Your task to perform on an android device: Go to battery settings Image 0: 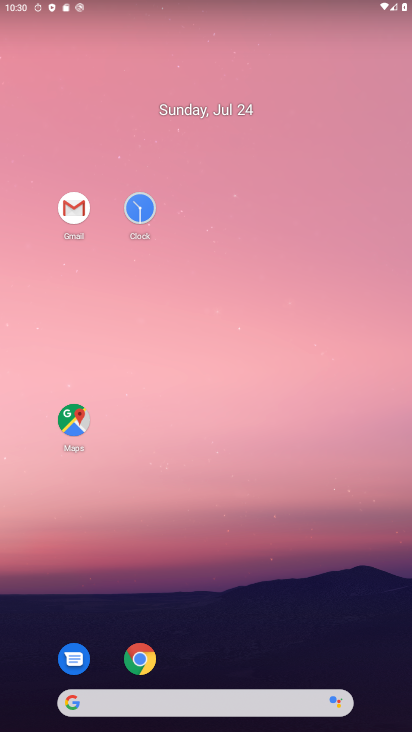
Step 0: drag from (235, 648) to (324, 228)
Your task to perform on an android device: Go to battery settings Image 1: 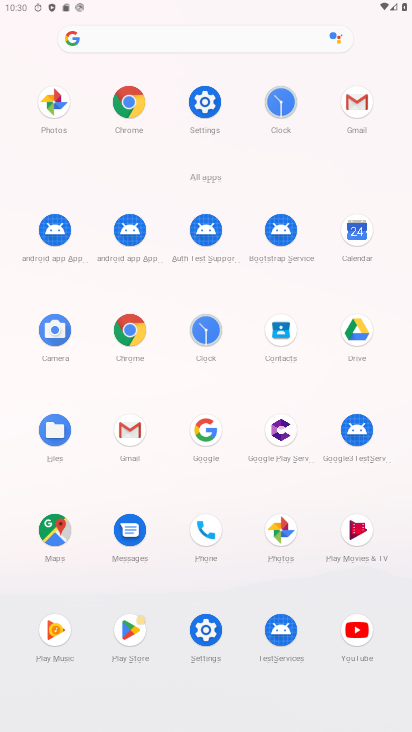
Step 1: drag from (194, 104) to (198, 193)
Your task to perform on an android device: Go to battery settings Image 2: 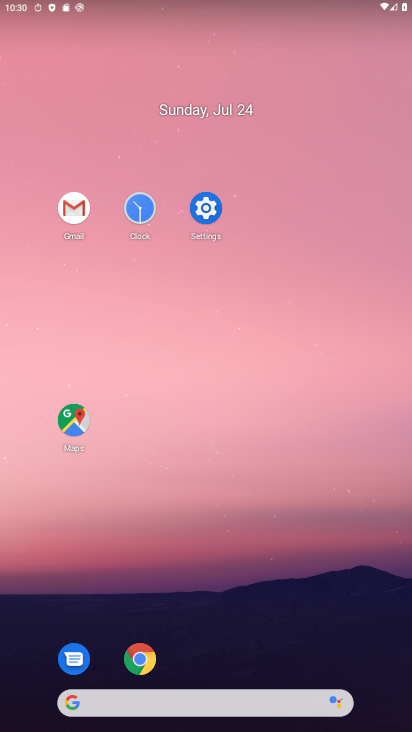
Step 2: click (201, 208)
Your task to perform on an android device: Go to battery settings Image 3: 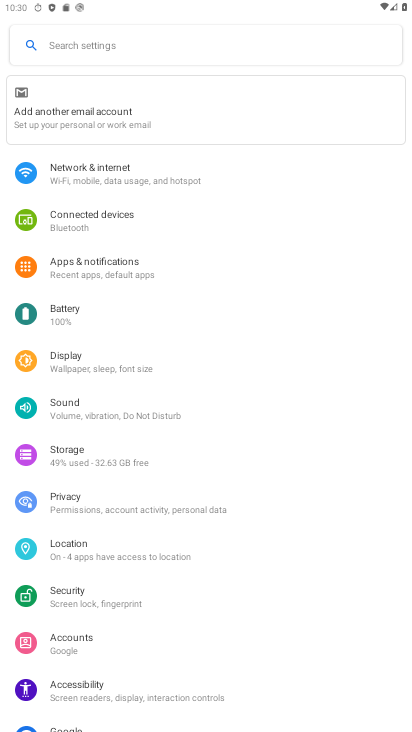
Step 3: click (180, 329)
Your task to perform on an android device: Go to battery settings Image 4: 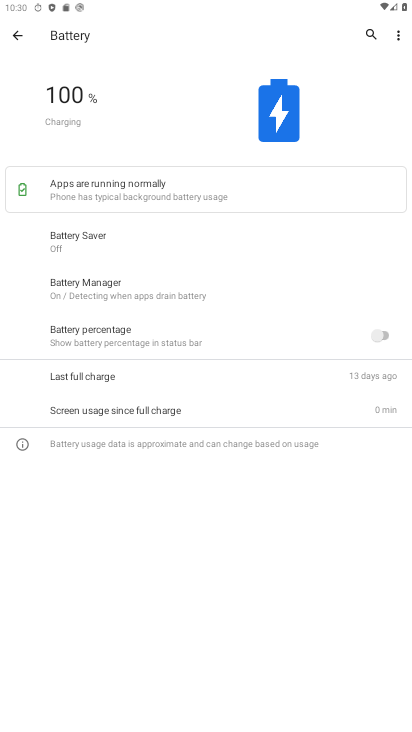
Step 4: task complete